Your task to perform on an android device: Open Google Chrome and click the shortcut for Amazon.com Image 0: 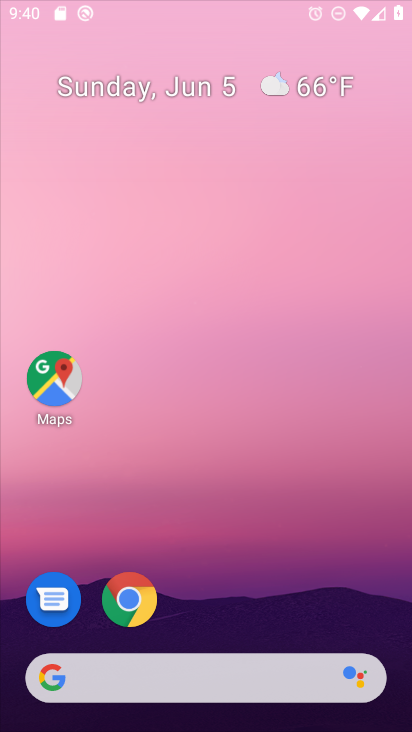
Step 0: click (211, 55)
Your task to perform on an android device: Open Google Chrome and click the shortcut for Amazon.com Image 1: 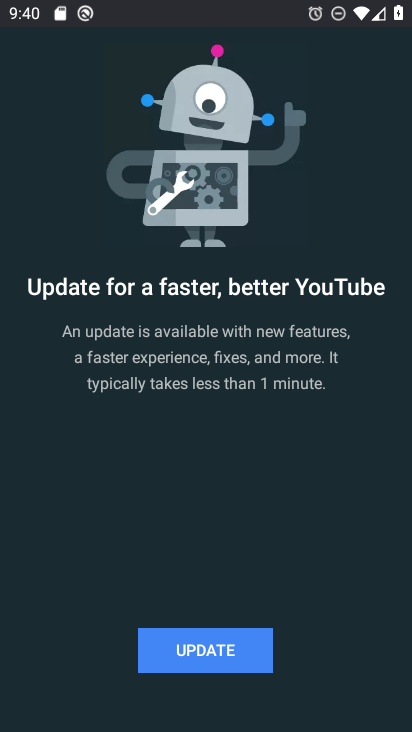
Step 1: press back button
Your task to perform on an android device: Open Google Chrome and click the shortcut for Amazon.com Image 2: 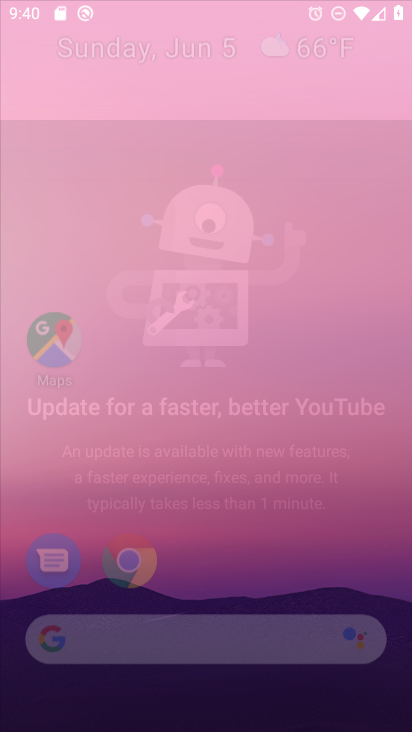
Step 2: press home button
Your task to perform on an android device: Open Google Chrome and click the shortcut for Amazon.com Image 3: 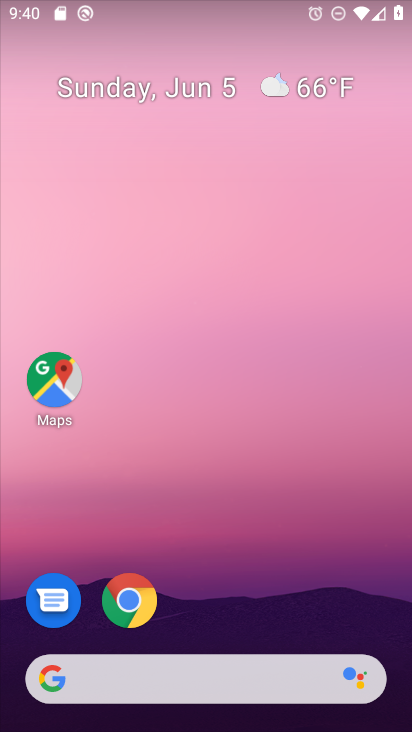
Step 3: drag from (372, 618) to (274, 72)
Your task to perform on an android device: Open Google Chrome and click the shortcut for Amazon.com Image 4: 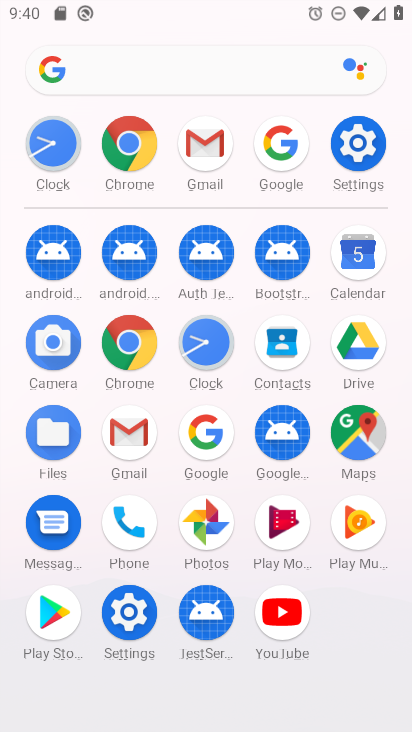
Step 4: click (226, 427)
Your task to perform on an android device: Open Google Chrome and click the shortcut for Amazon.com Image 5: 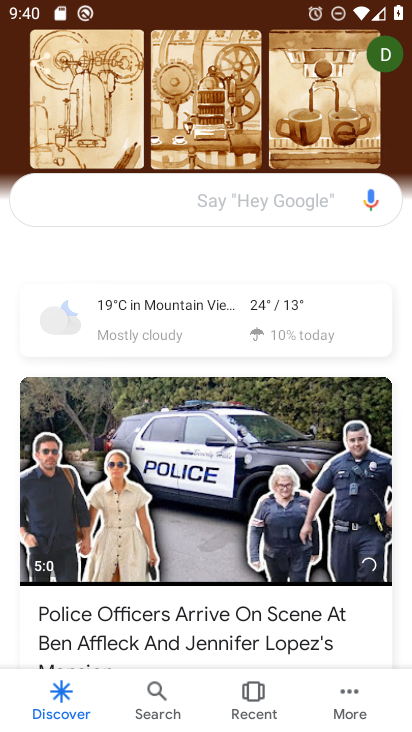
Step 5: click (165, 194)
Your task to perform on an android device: Open Google Chrome and click the shortcut for Amazon.com Image 6: 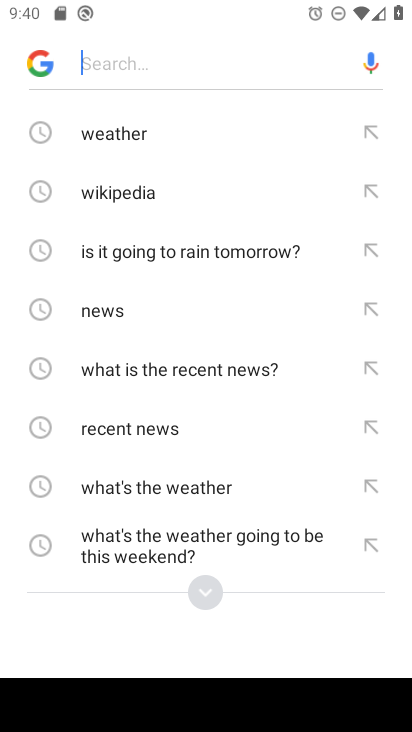
Step 6: click (206, 575)
Your task to perform on an android device: Open Google Chrome and click the shortcut for Amazon.com Image 7: 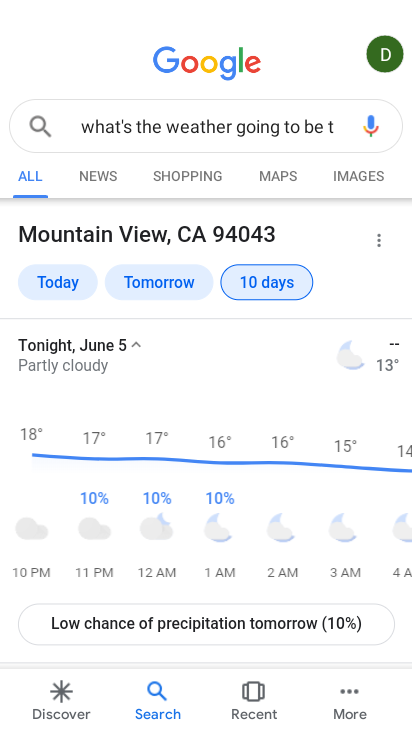
Step 7: press back button
Your task to perform on an android device: Open Google Chrome and click the shortcut for Amazon.com Image 8: 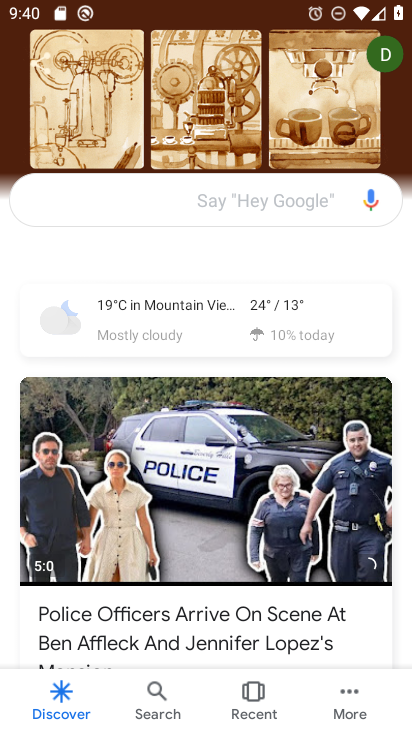
Step 8: click (210, 206)
Your task to perform on an android device: Open Google Chrome and click the shortcut for Amazon.com Image 9: 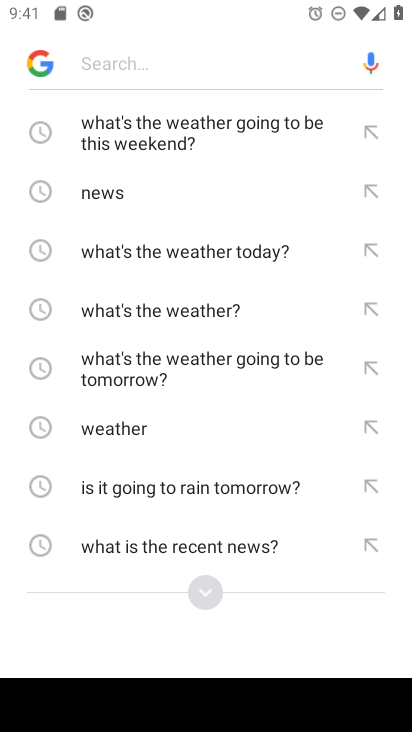
Step 9: click (200, 576)
Your task to perform on an android device: Open Google Chrome and click the shortcut for Amazon.com Image 10: 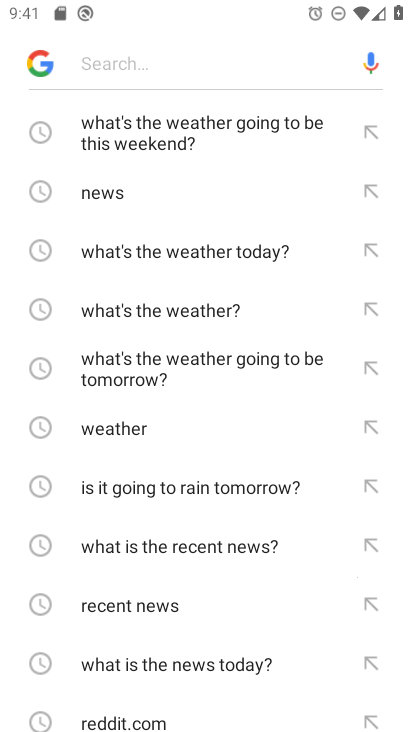
Step 10: drag from (110, 652) to (112, 102)
Your task to perform on an android device: Open Google Chrome and click the shortcut for Amazon.com Image 11: 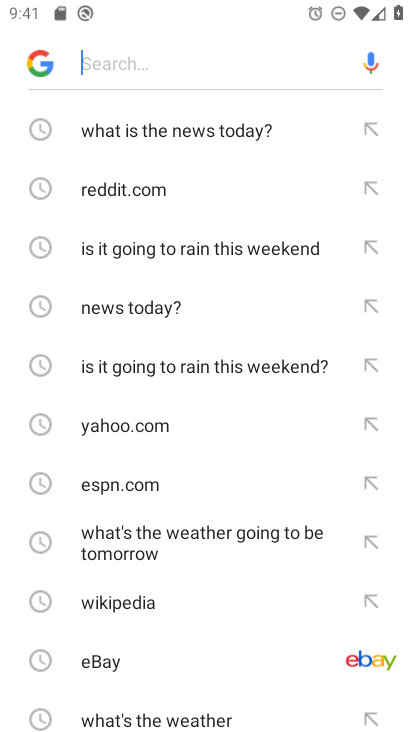
Step 11: drag from (169, 646) to (126, 66)
Your task to perform on an android device: Open Google Chrome and click the shortcut for Amazon.com Image 12: 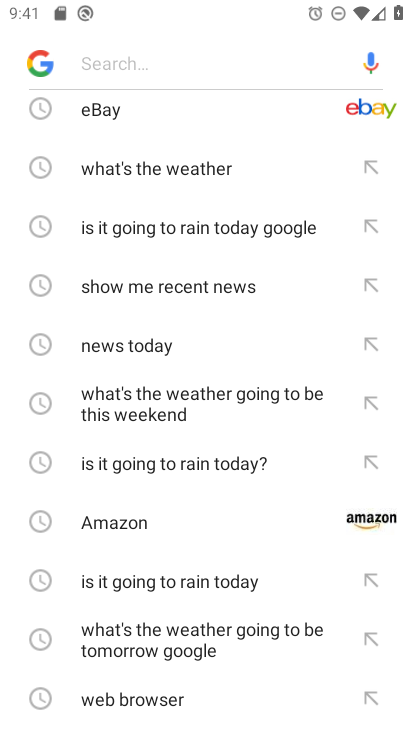
Step 12: click (154, 530)
Your task to perform on an android device: Open Google Chrome and click the shortcut for Amazon.com Image 13: 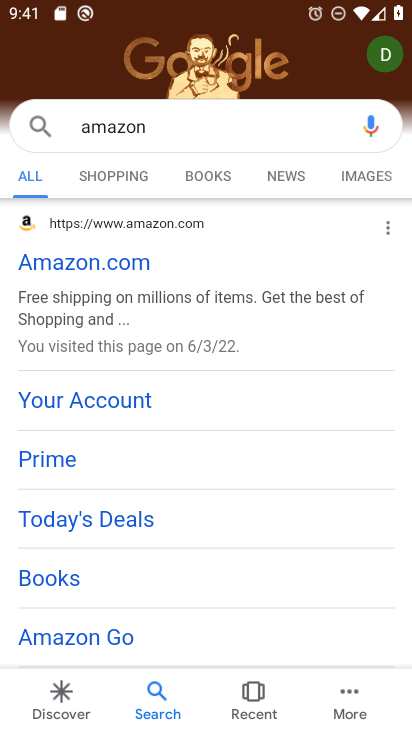
Step 13: task complete